Your task to perform on an android device: turn on translation in the chrome app Image 0: 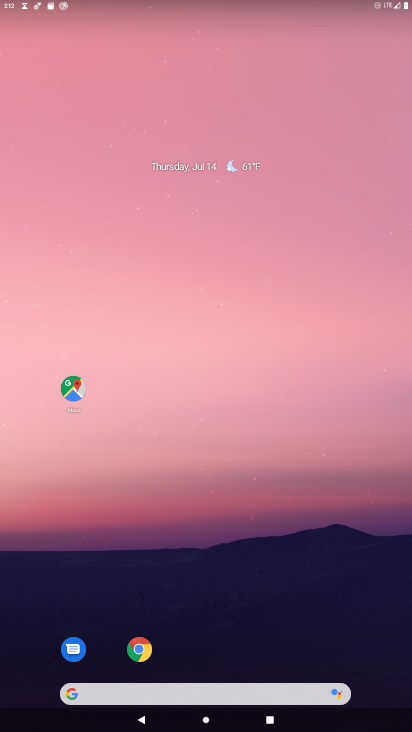
Step 0: drag from (270, 700) to (319, 65)
Your task to perform on an android device: turn on translation in the chrome app Image 1: 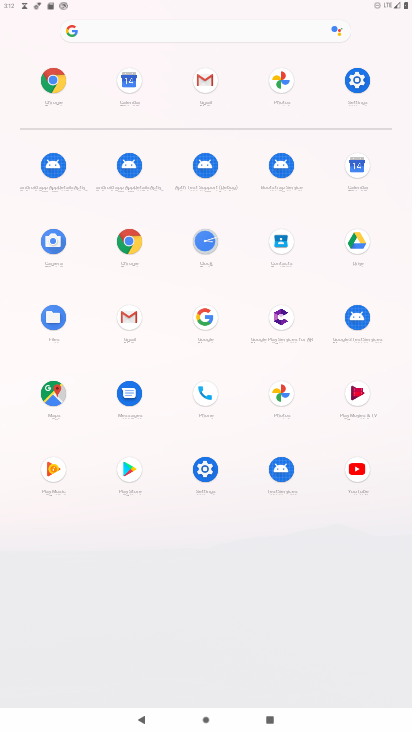
Step 1: click (129, 239)
Your task to perform on an android device: turn on translation in the chrome app Image 2: 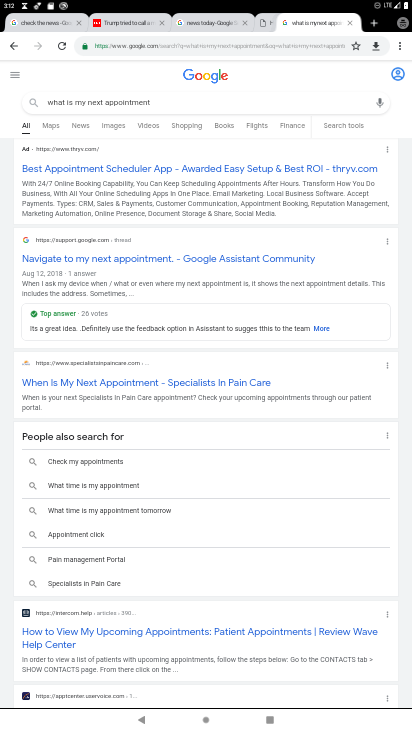
Step 2: drag from (400, 47) to (292, 279)
Your task to perform on an android device: turn on translation in the chrome app Image 3: 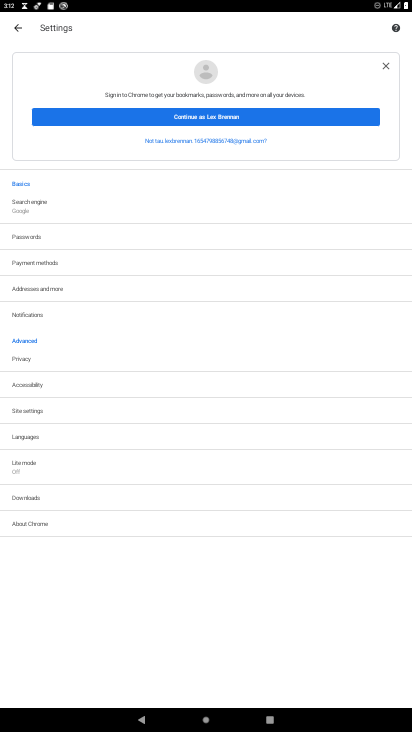
Step 3: click (59, 412)
Your task to perform on an android device: turn on translation in the chrome app Image 4: 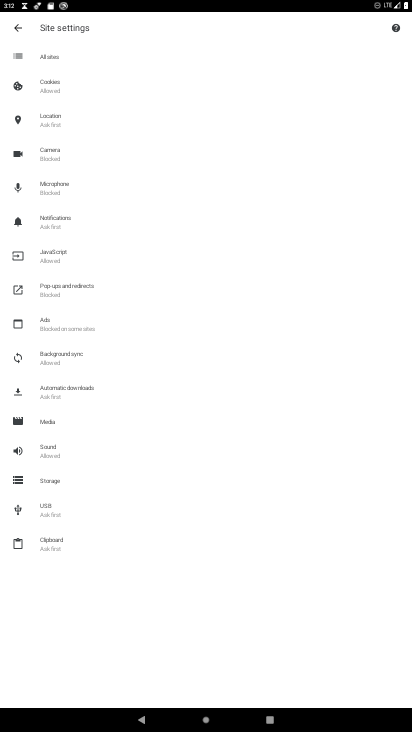
Step 4: press back button
Your task to perform on an android device: turn on translation in the chrome app Image 5: 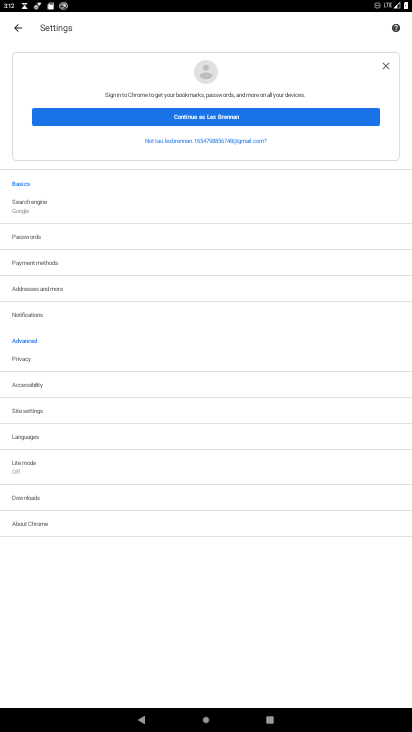
Step 5: click (40, 443)
Your task to perform on an android device: turn on translation in the chrome app Image 6: 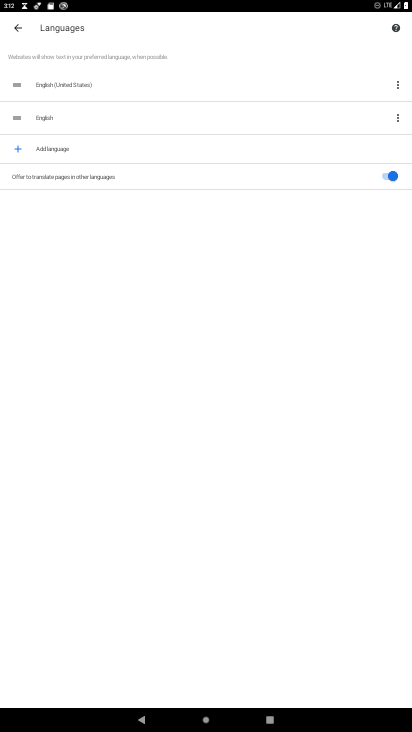
Step 6: task complete